Your task to perform on an android device: change alarm snooze length Image 0: 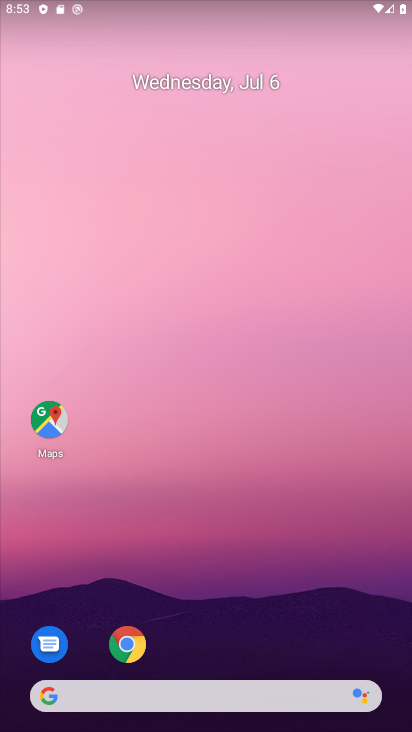
Step 0: drag from (277, 625) to (314, 277)
Your task to perform on an android device: change alarm snooze length Image 1: 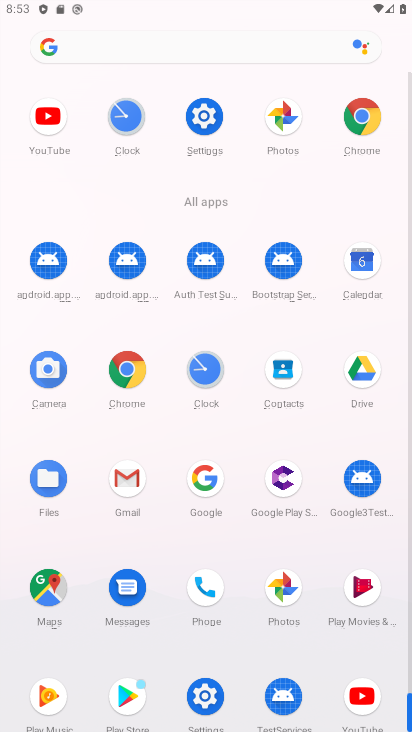
Step 1: click (216, 382)
Your task to perform on an android device: change alarm snooze length Image 2: 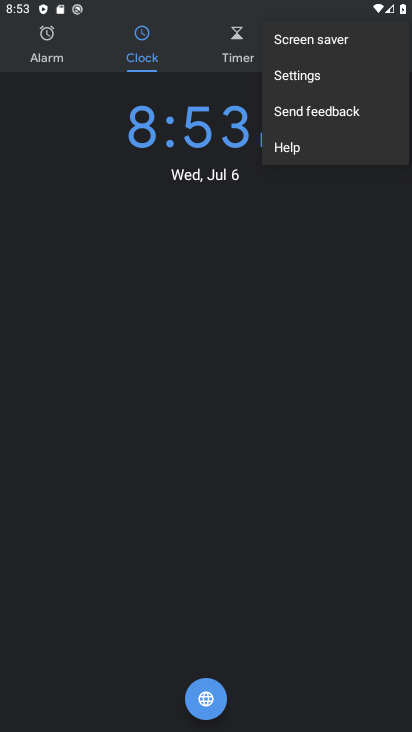
Step 2: click (216, 382)
Your task to perform on an android device: change alarm snooze length Image 3: 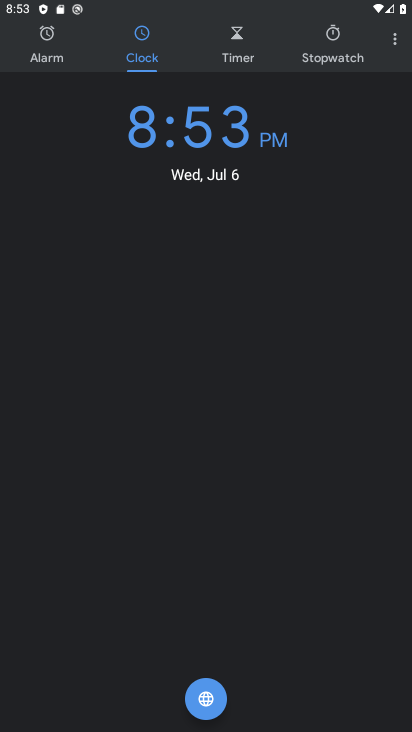
Step 3: click (216, 382)
Your task to perform on an android device: change alarm snooze length Image 4: 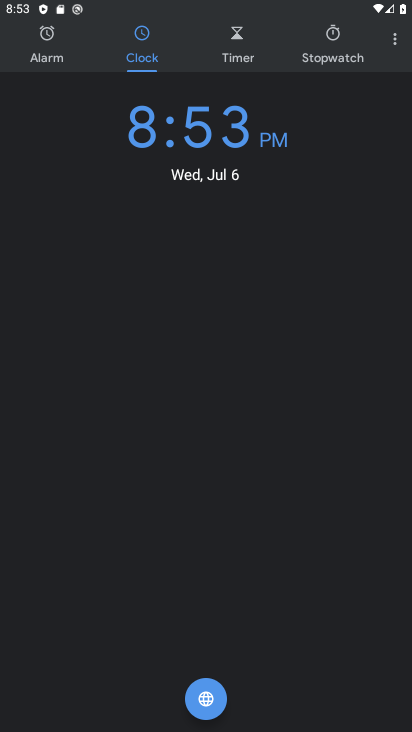
Step 4: click (56, 56)
Your task to perform on an android device: change alarm snooze length Image 5: 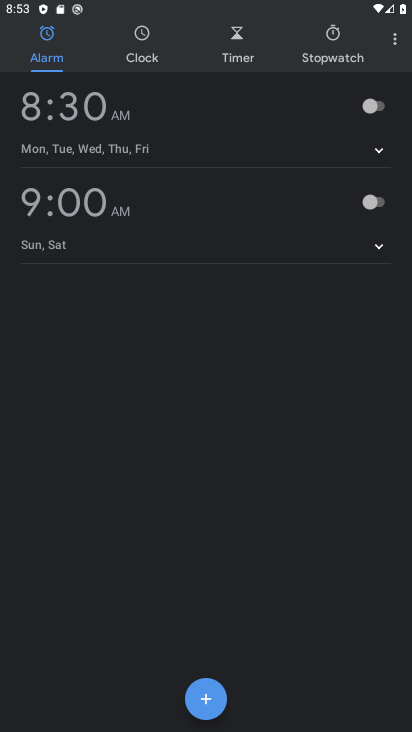
Step 5: click (397, 41)
Your task to perform on an android device: change alarm snooze length Image 6: 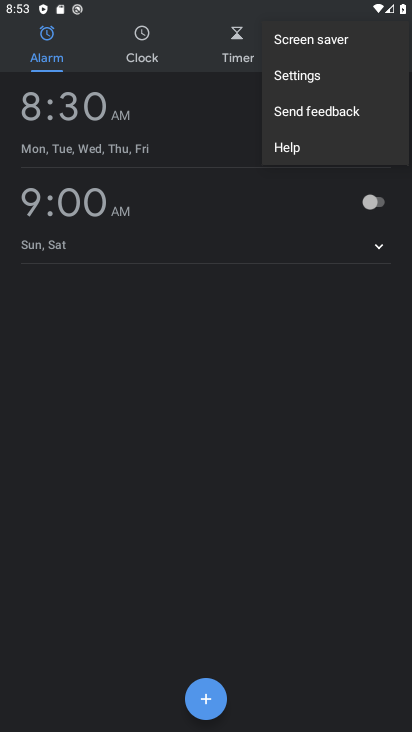
Step 6: click (308, 71)
Your task to perform on an android device: change alarm snooze length Image 7: 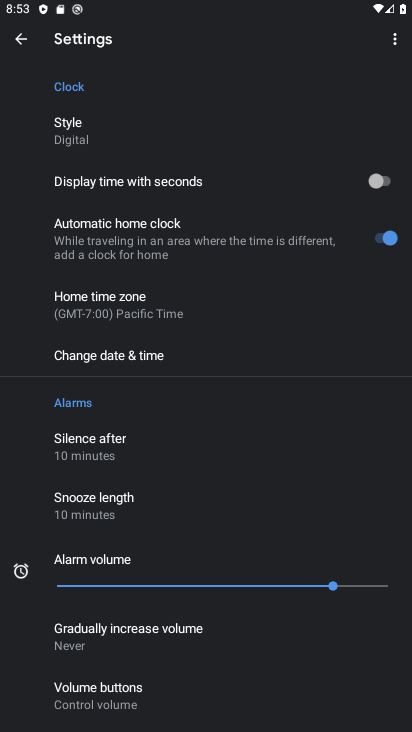
Step 7: click (161, 505)
Your task to perform on an android device: change alarm snooze length Image 8: 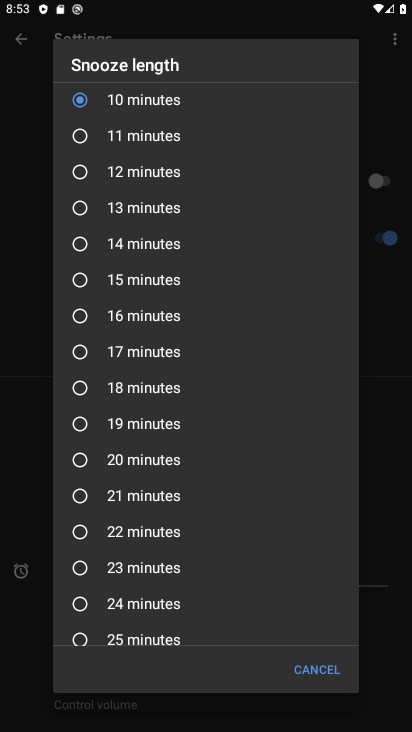
Step 8: click (120, 177)
Your task to perform on an android device: change alarm snooze length Image 9: 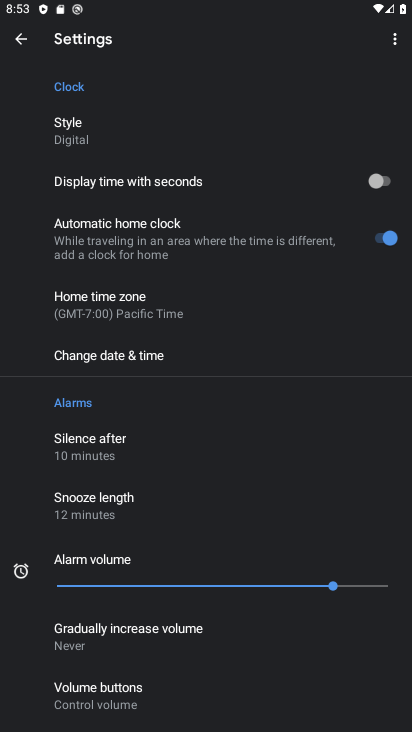
Step 9: task complete